Your task to perform on an android device: Open settings on Google Maps Image 0: 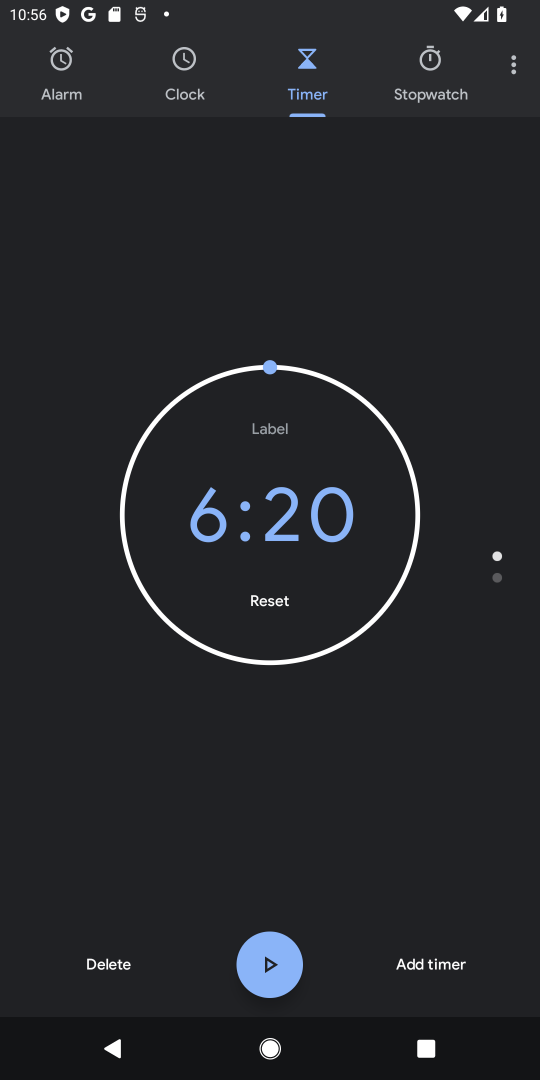
Step 0: press home button
Your task to perform on an android device: Open settings on Google Maps Image 1: 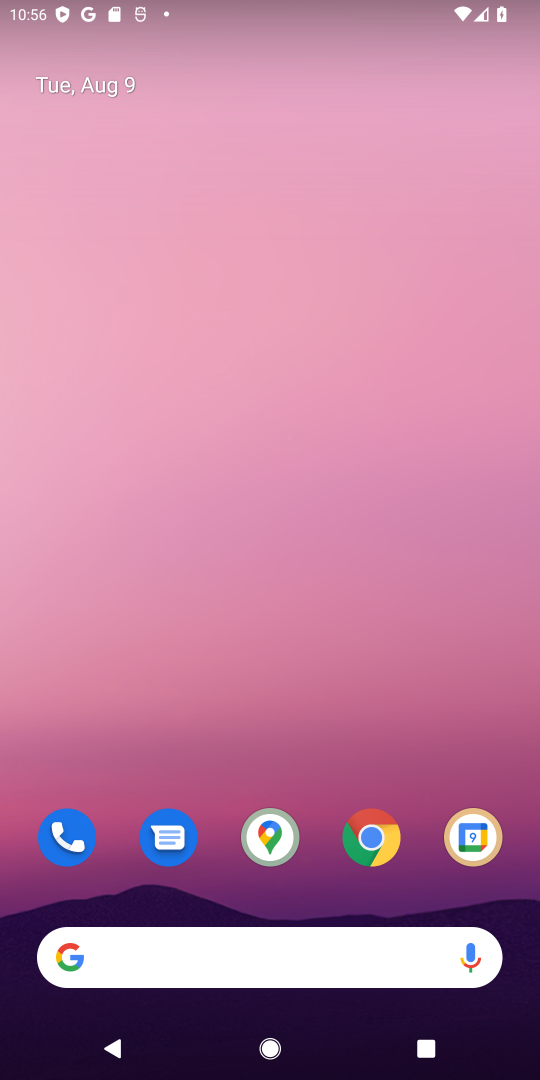
Step 1: drag from (338, 908) to (265, 139)
Your task to perform on an android device: Open settings on Google Maps Image 2: 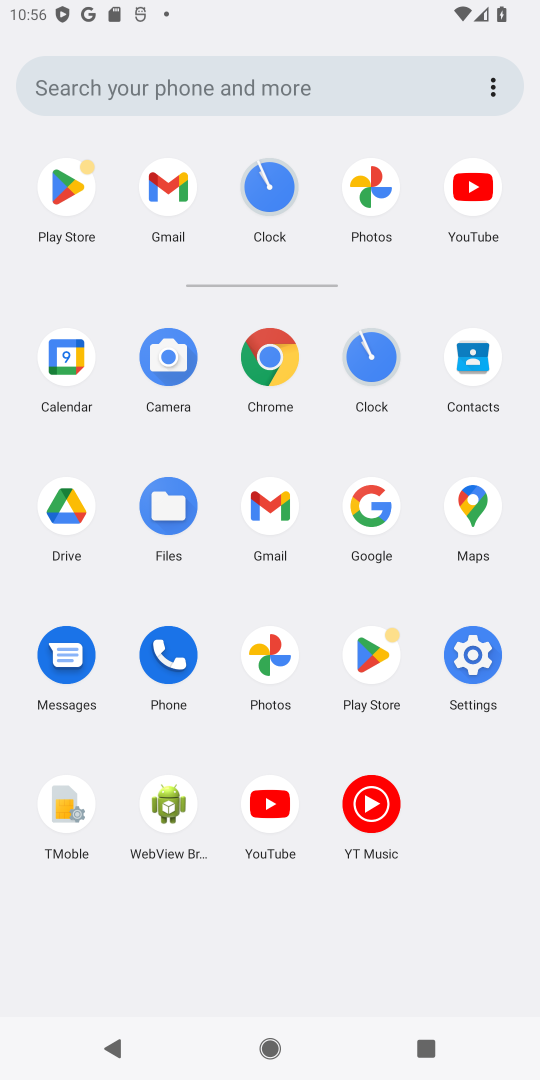
Step 2: click (477, 487)
Your task to perform on an android device: Open settings on Google Maps Image 3: 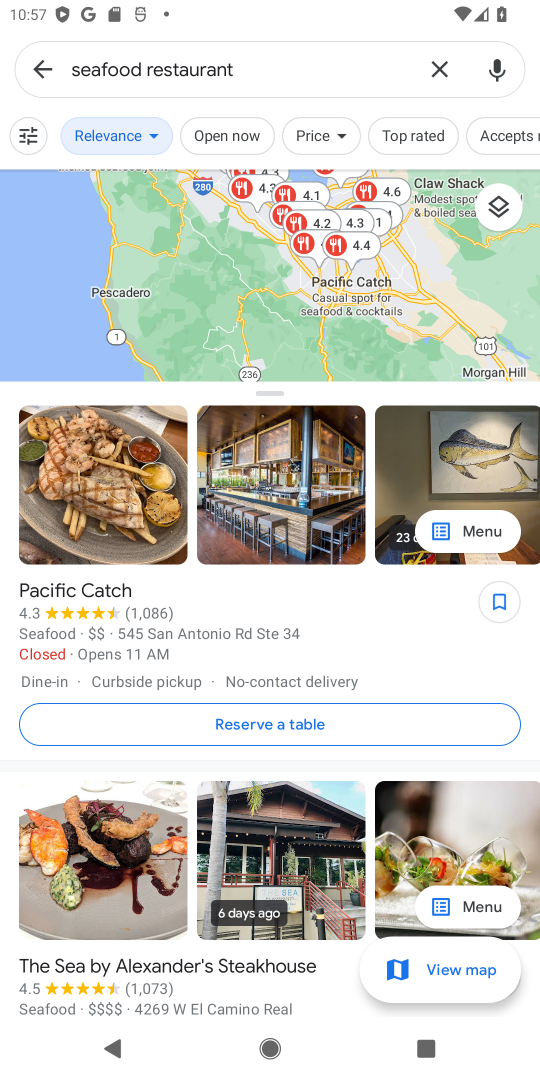
Step 3: click (46, 60)
Your task to perform on an android device: Open settings on Google Maps Image 4: 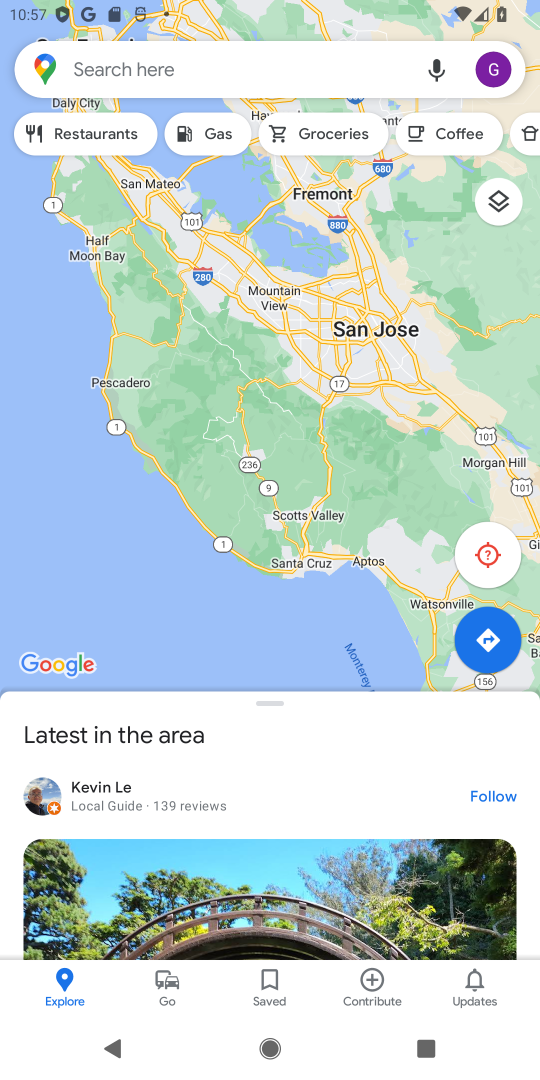
Step 4: click (491, 62)
Your task to perform on an android device: Open settings on Google Maps Image 5: 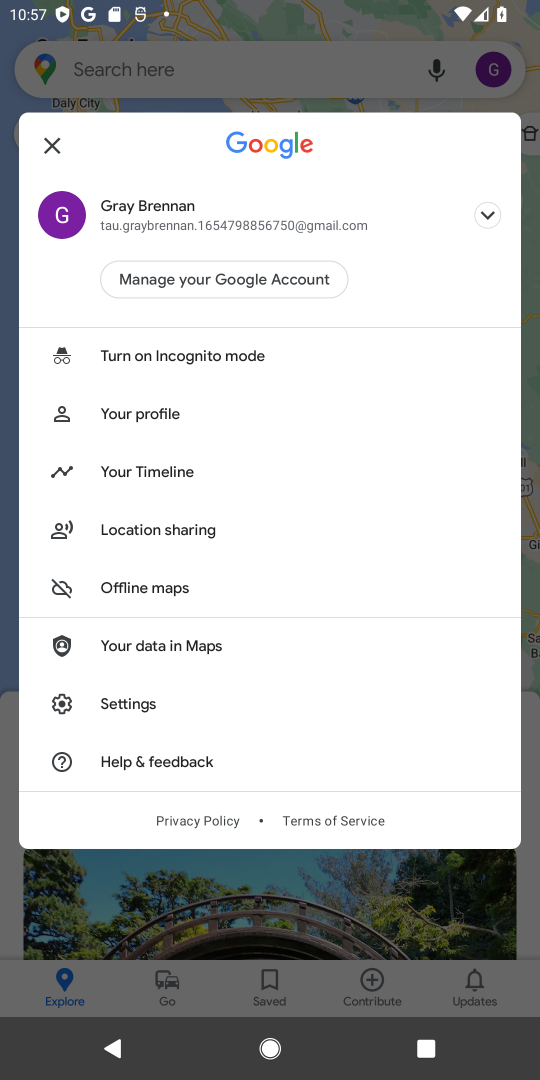
Step 5: click (125, 699)
Your task to perform on an android device: Open settings on Google Maps Image 6: 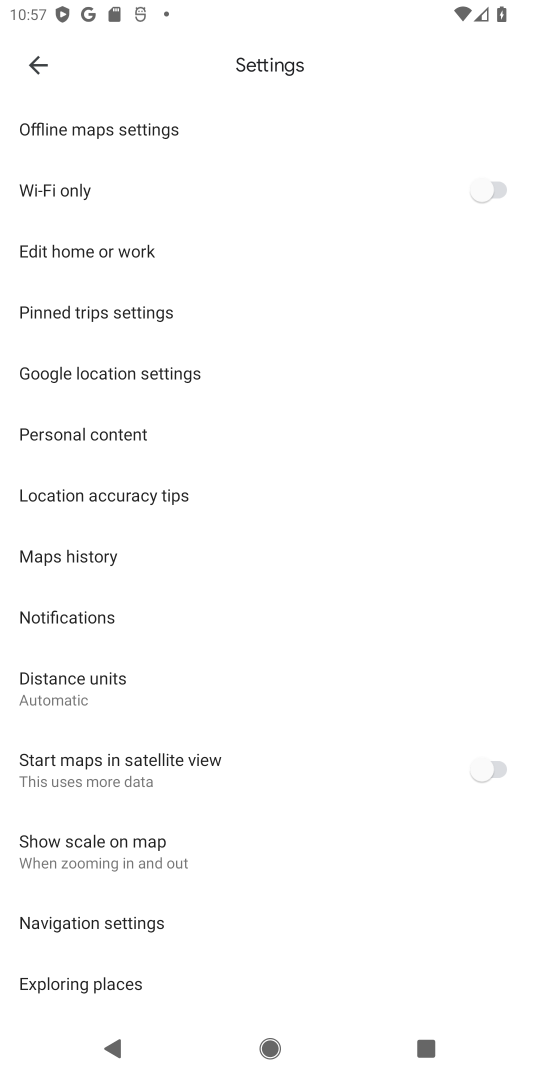
Step 6: task complete